Your task to perform on an android device: toggle wifi Image 0: 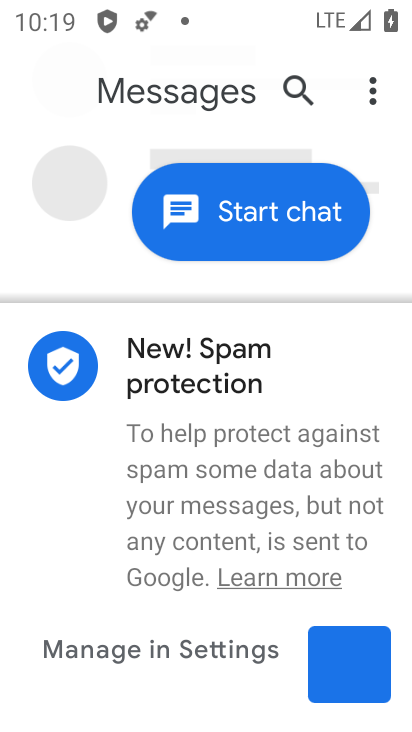
Step 0: press home button
Your task to perform on an android device: toggle wifi Image 1: 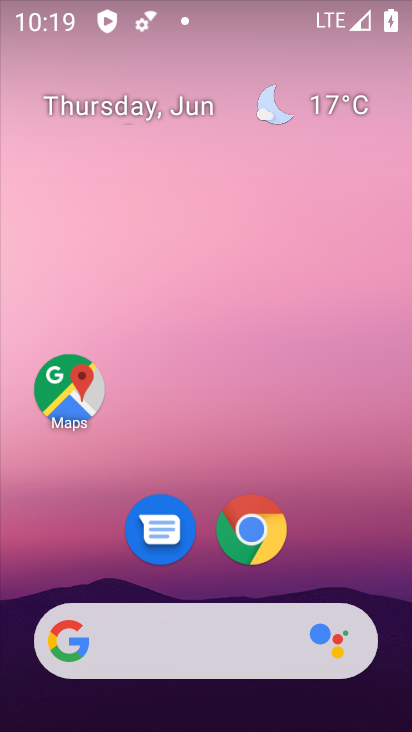
Step 1: drag from (211, 578) to (197, 34)
Your task to perform on an android device: toggle wifi Image 2: 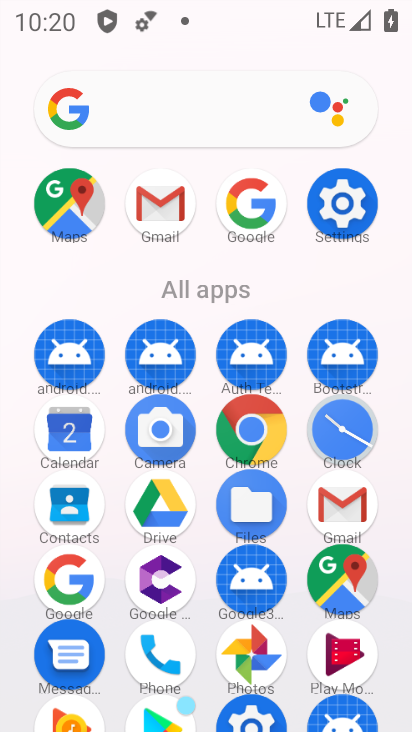
Step 2: click (337, 214)
Your task to perform on an android device: toggle wifi Image 3: 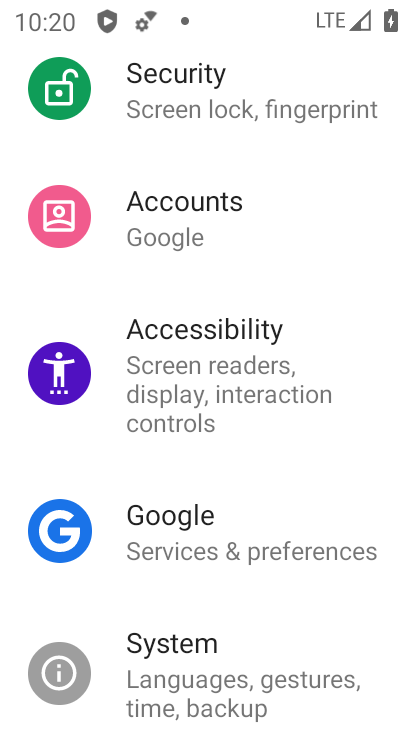
Step 3: drag from (130, 204) to (191, 493)
Your task to perform on an android device: toggle wifi Image 4: 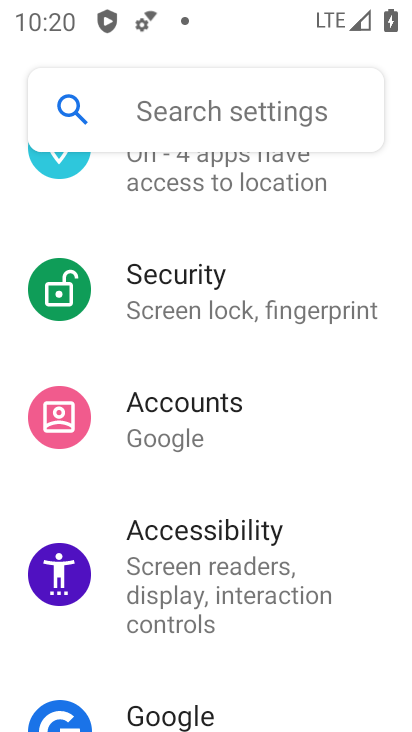
Step 4: drag from (185, 235) to (272, 626)
Your task to perform on an android device: toggle wifi Image 5: 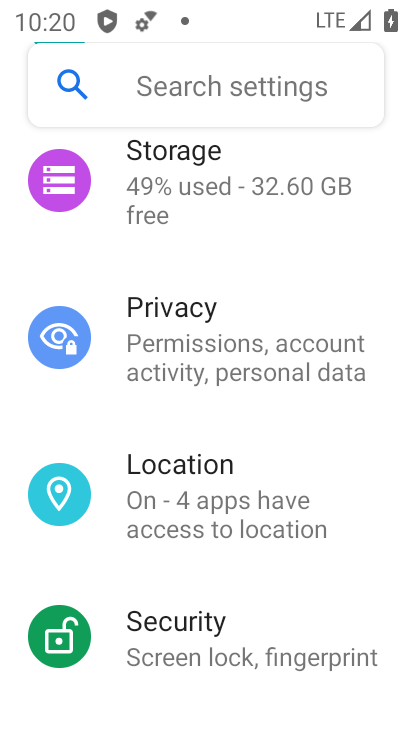
Step 5: drag from (186, 378) to (245, 730)
Your task to perform on an android device: toggle wifi Image 6: 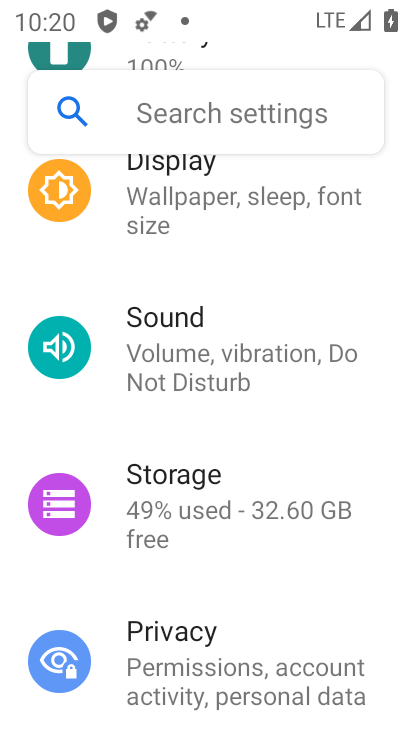
Step 6: drag from (199, 384) to (288, 730)
Your task to perform on an android device: toggle wifi Image 7: 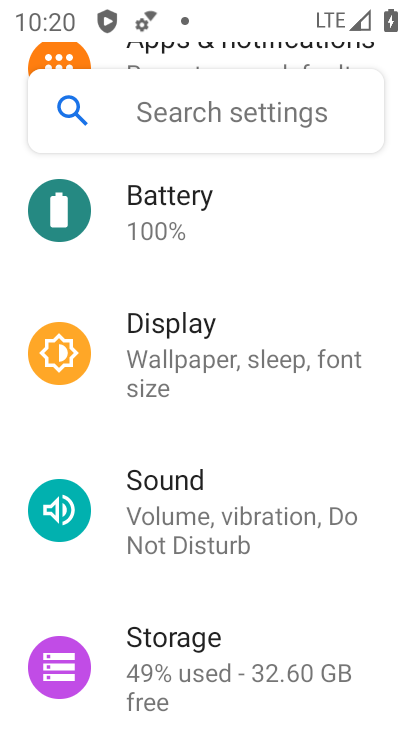
Step 7: drag from (216, 291) to (299, 681)
Your task to perform on an android device: toggle wifi Image 8: 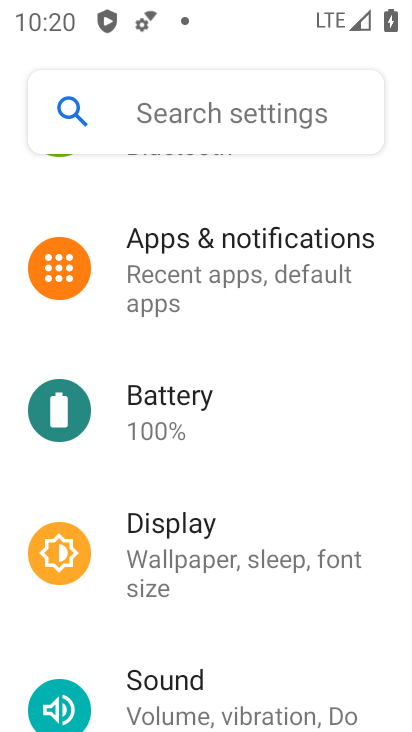
Step 8: drag from (227, 282) to (291, 721)
Your task to perform on an android device: toggle wifi Image 9: 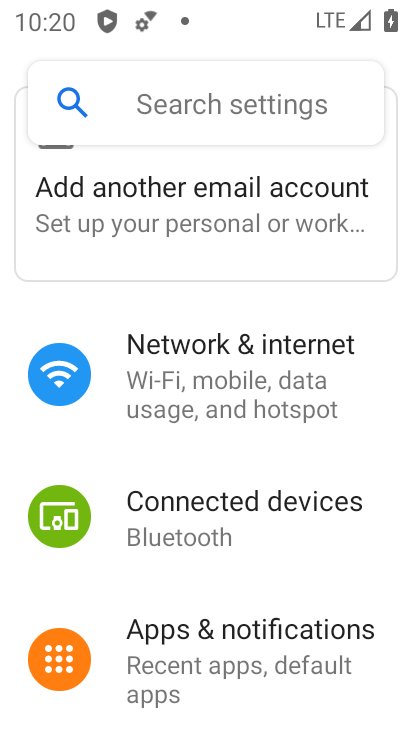
Step 9: click (274, 357)
Your task to perform on an android device: toggle wifi Image 10: 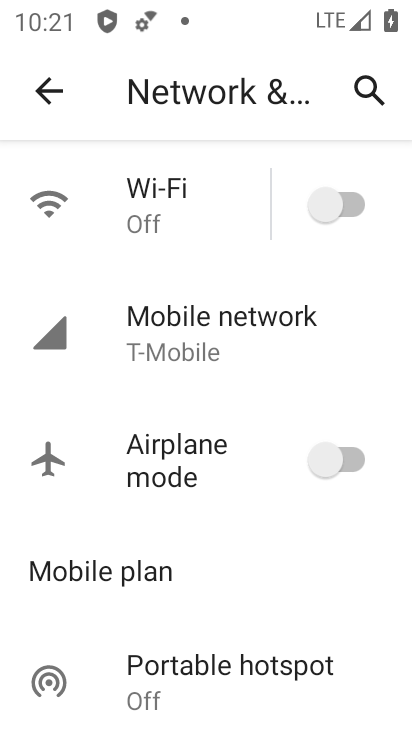
Step 10: click (357, 208)
Your task to perform on an android device: toggle wifi Image 11: 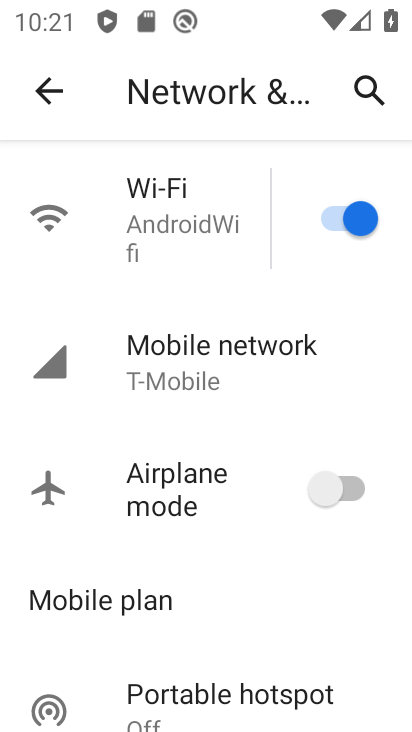
Step 11: task complete